Your task to perform on an android device: change notifications settings Image 0: 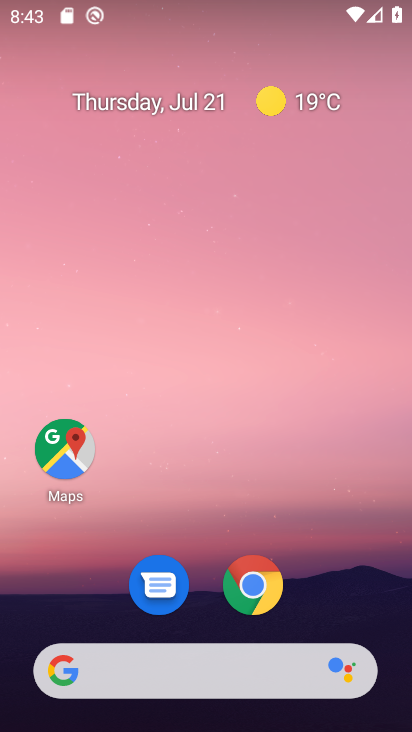
Step 0: drag from (330, 567) to (306, 34)
Your task to perform on an android device: change notifications settings Image 1: 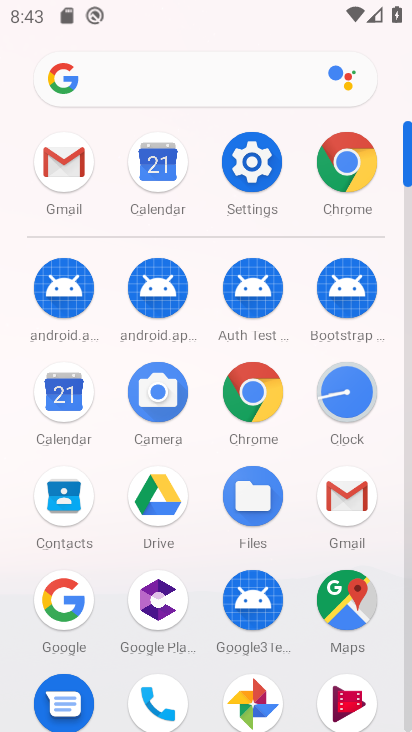
Step 1: click (260, 161)
Your task to perform on an android device: change notifications settings Image 2: 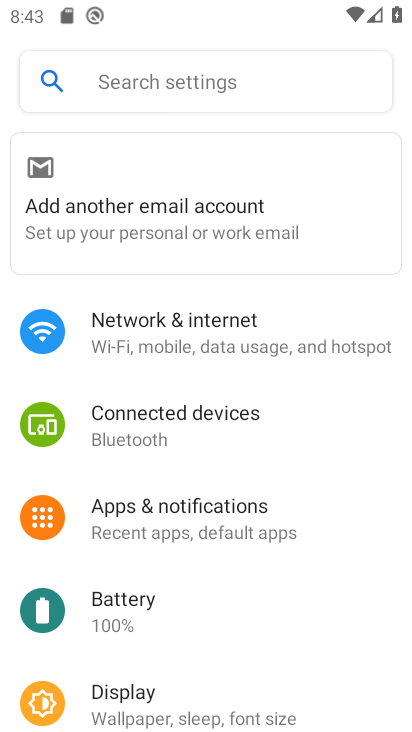
Step 2: click (219, 513)
Your task to perform on an android device: change notifications settings Image 3: 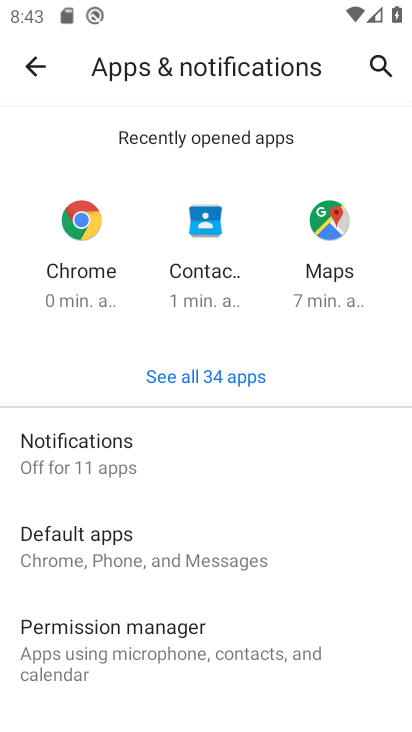
Step 3: click (109, 461)
Your task to perform on an android device: change notifications settings Image 4: 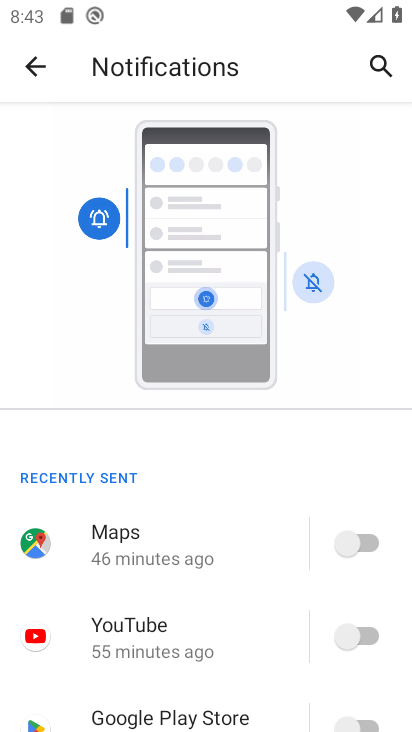
Step 4: drag from (197, 590) to (212, 211)
Your task to perform on an android device: change notifications settings Image 5: 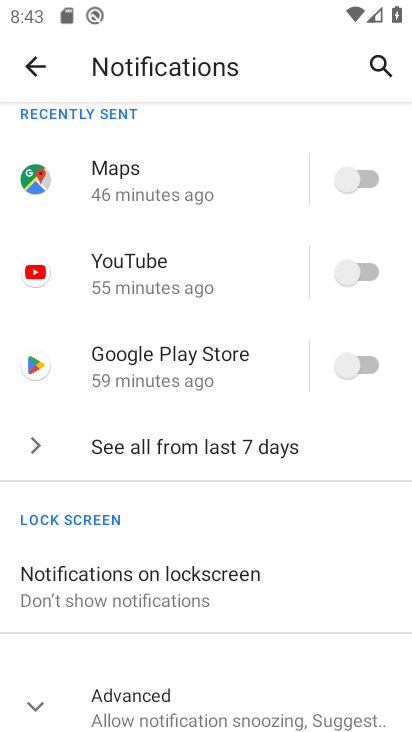
Step 5: click (277, 442)
Your task to perform on an android device: change notifications settings Image 6: 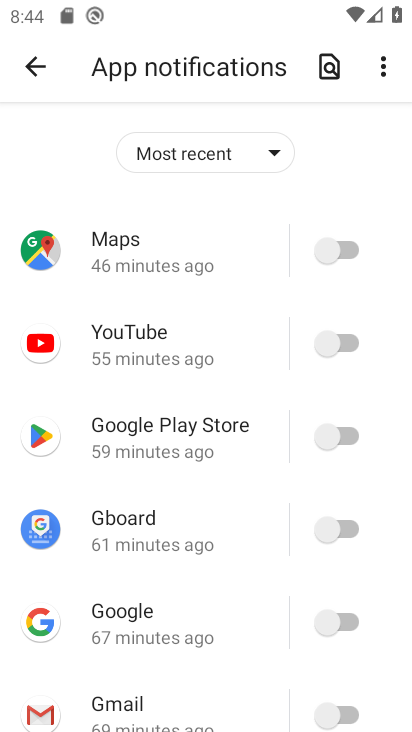
Step 6: click (335, 247)
Your task to perform on an android device: change notifications settings Image 7: 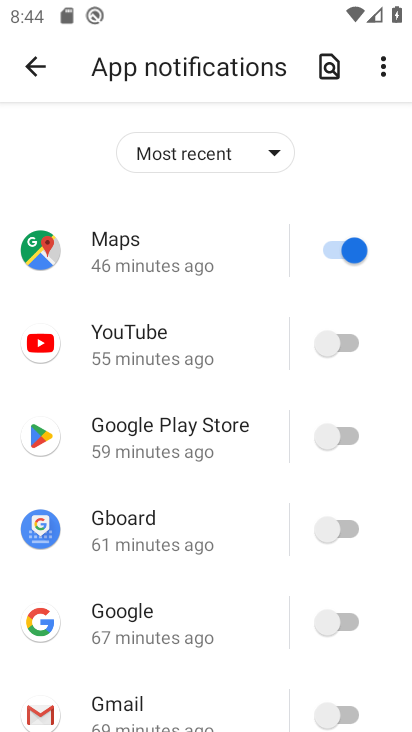
Step 7: click (342, 335)
Your task to perform on an android device: change notifications settings Image 8: 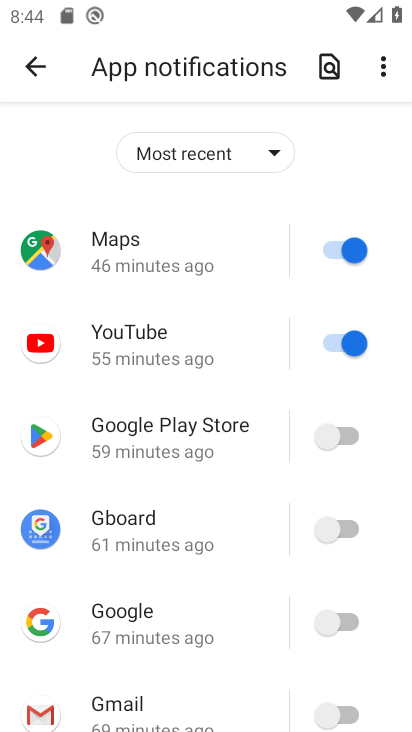
Step 8: click (335, 426)
Your task to perform on an android device: change notifications settings Image 9: 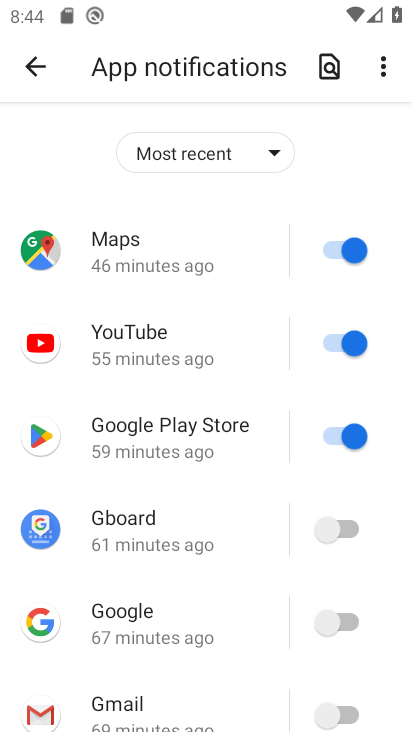
Step 9: click (335, 520)
Your task to perform on an android device: change notifications settings Image 10: 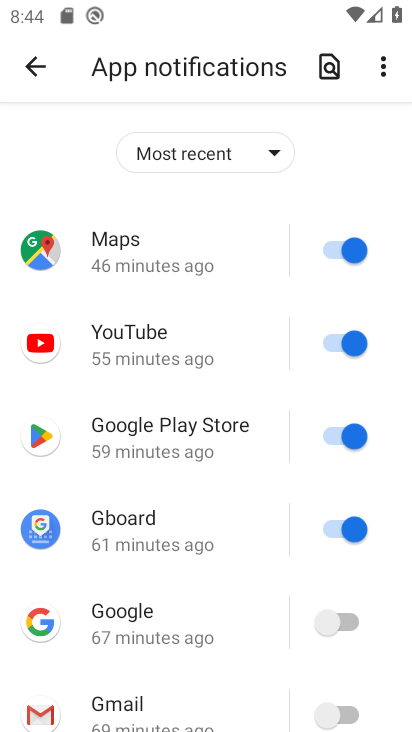
Step 10: click (337, 618)
Your task to perform on an android device: change notifications settings Image 11: 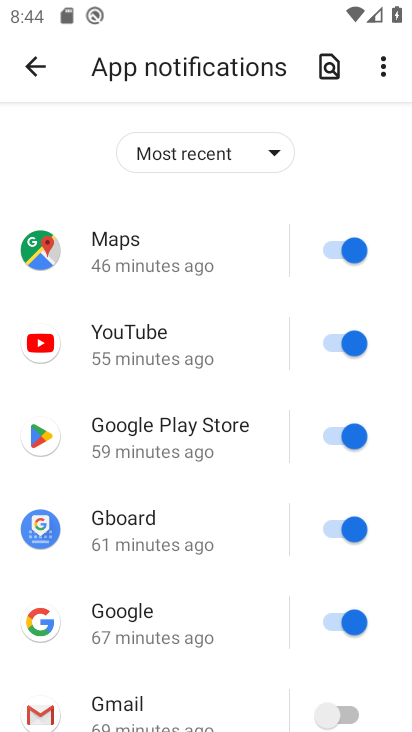
Step 11: click (337, 706)
Your task to perform on an android device: change notifications settings Image 12: 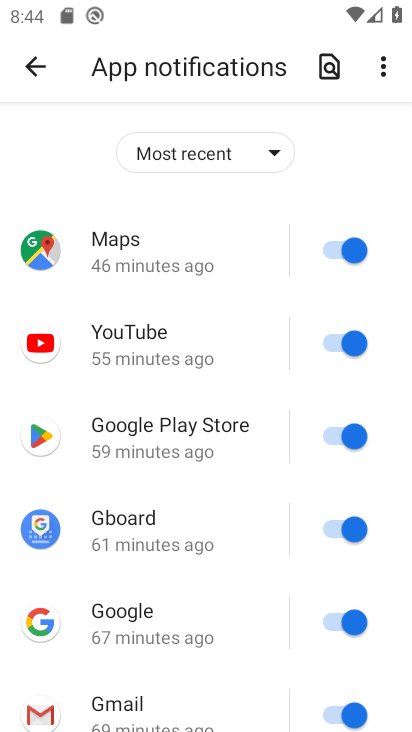
Step 12: drag from (208, 637) to (227, 126)
Your task to perform on an android device: change notifications settings Image 13: 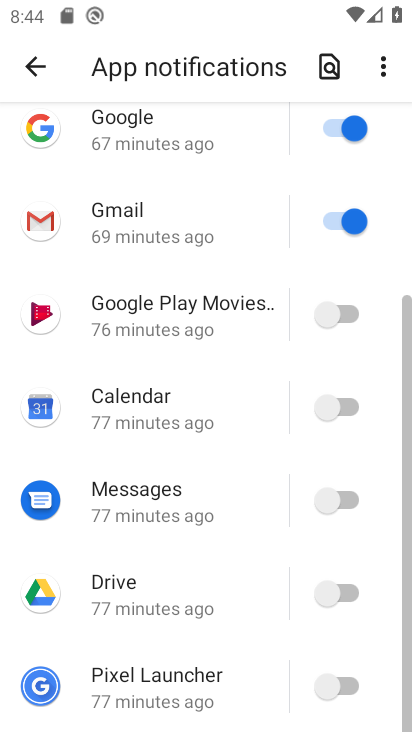
Step 13: drag from (242, 246) to (240, 130)
Your task to perform on an android device: change notifications settings Image 14: 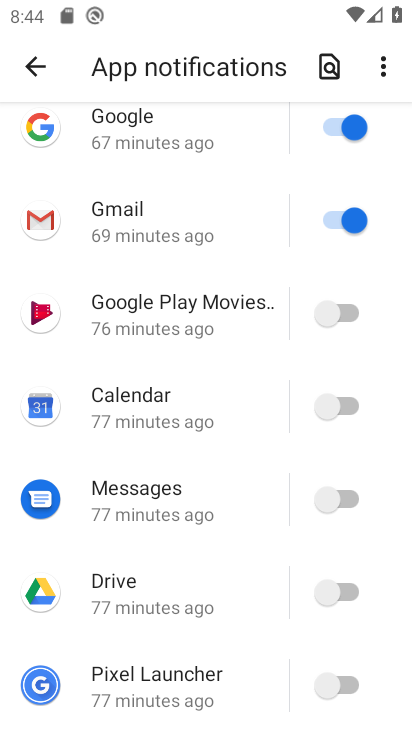
Step 14: click (346, 306)
Your task to perform on an android device: change notifications settings Image 15: 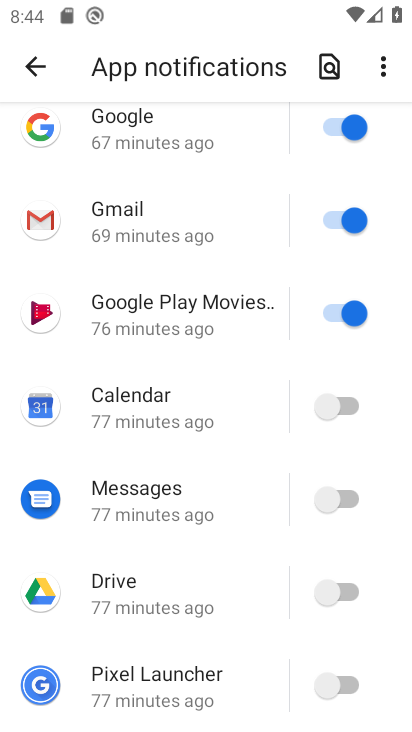
Step 15: click (342, 407)
Your task to perform on an android device: change notifications settings Image 16: 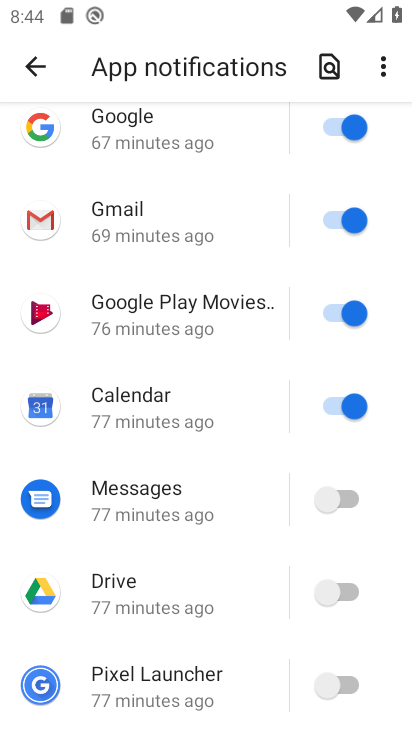
Step 16: click (343, 496)
Your task to perform on an android device: change notifications settings Image 17: 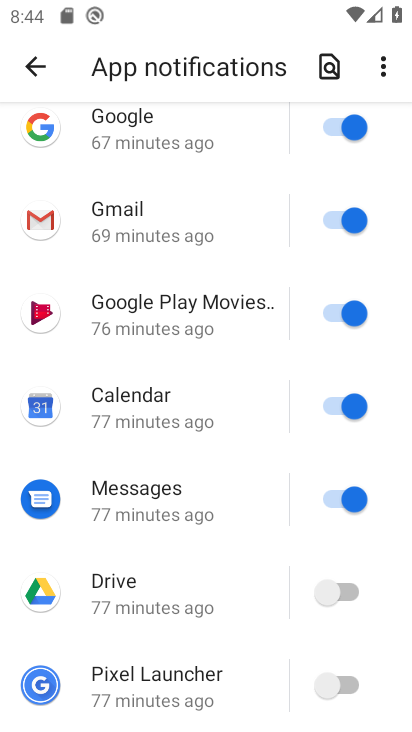
Step 17: click (338, 591)
Your task to perform on an android device: change notifications settings Image 18: 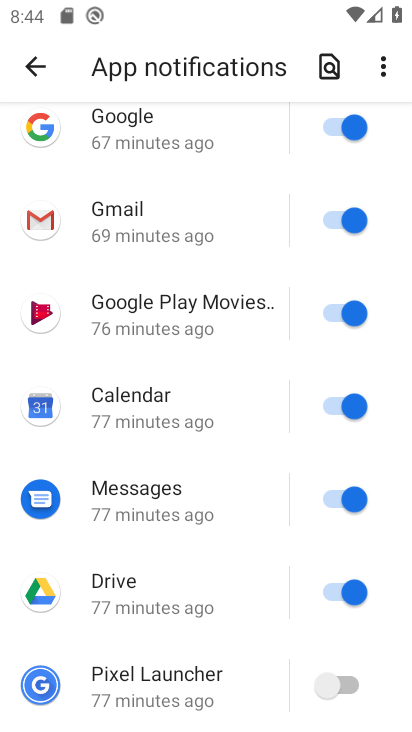
Step 18: click (337, 688)
Your task to perform on an android device: change notifications settings Image 19: 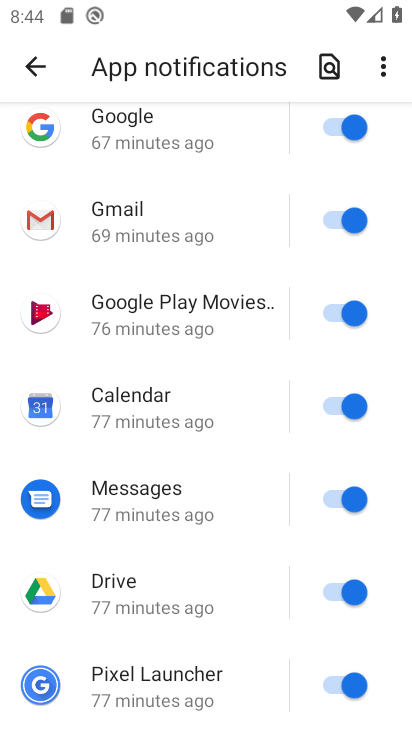
Step 19: task complete